Your task to perform on an android device: toggle airplane mode Image 0: 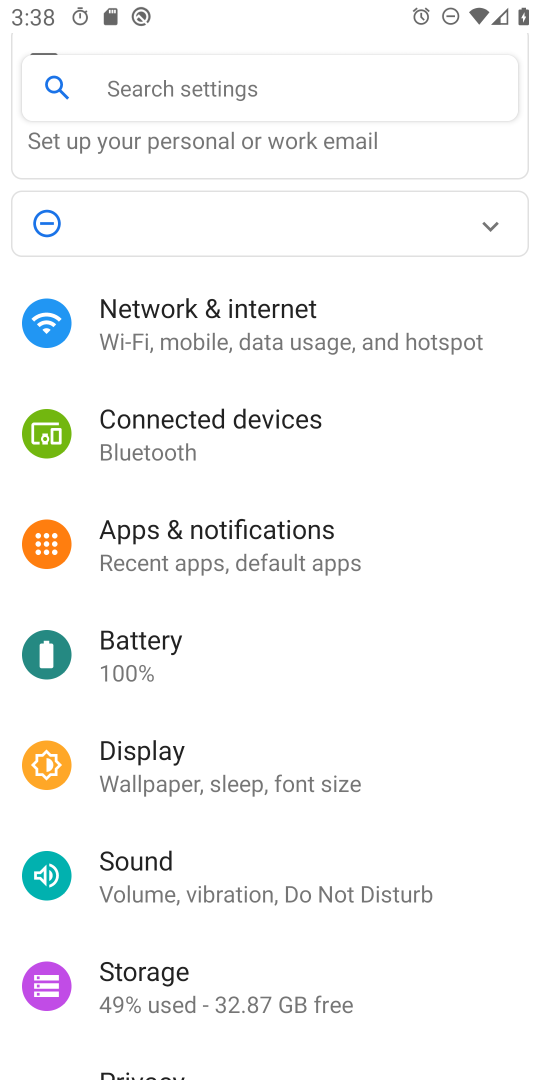
Step 0: click (262, 337)
Your task to perform on an android device: toggle airplane mode Image 1: 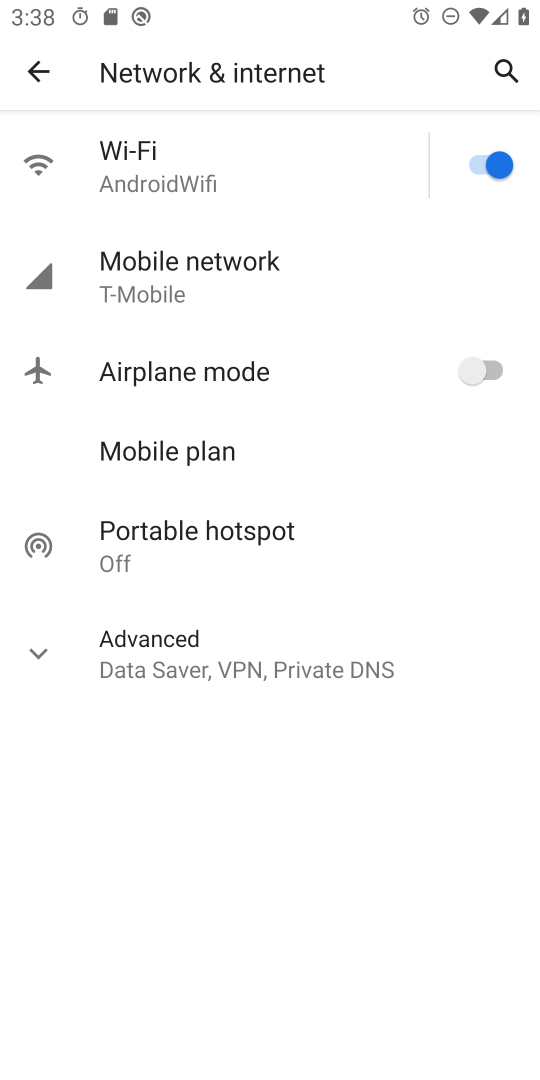
Step 1: click (489, 372)
Your task to perform on an android device: toggle airplane mode Image 2: 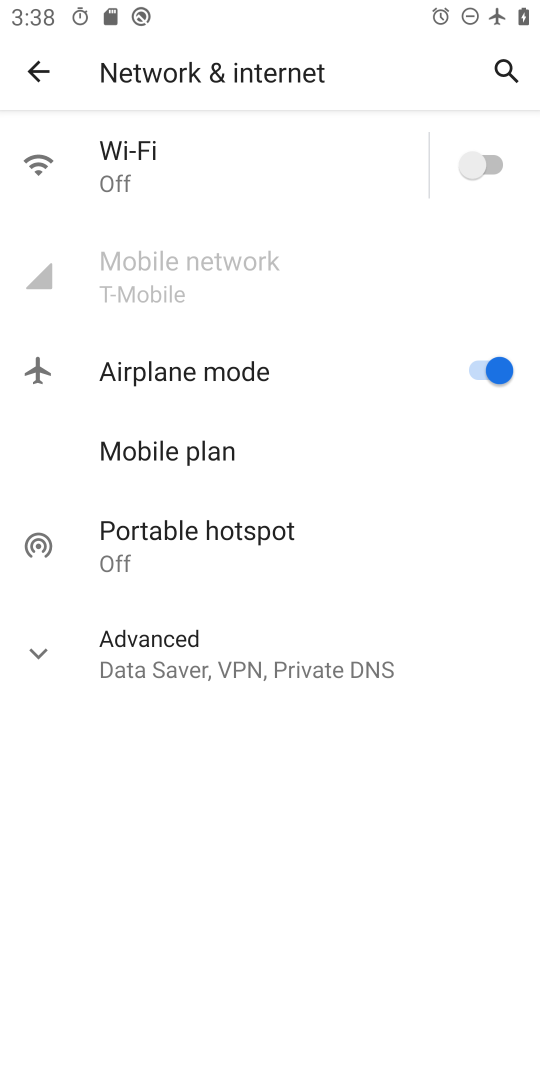
Step 2: task complete